Your task to perform on an android device: turn on priority inbox in the gmail app Image 0: 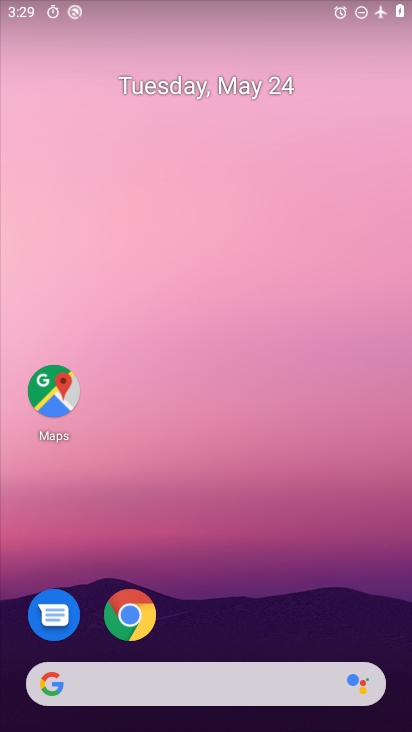
Step 0: drag from (192, 564) to (238, 371)
Your task to perform on an android device: turn on priority inbox in the gmail app Image 1: 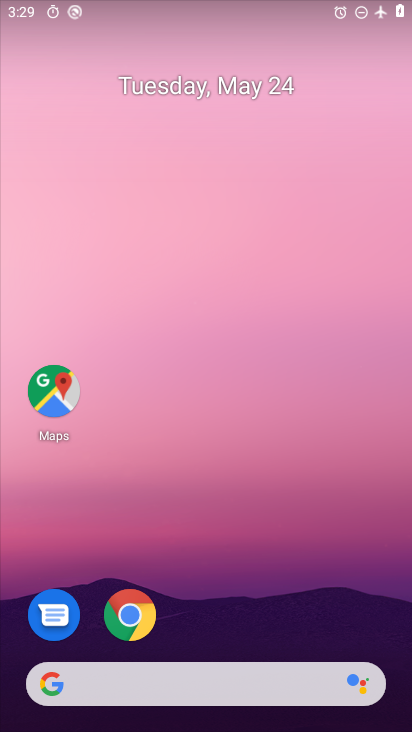
Step 1: drag from (227, 662) to (212, 275)
Your task to perform on an android device: turn on priority inbox in the gmail app Image 2: 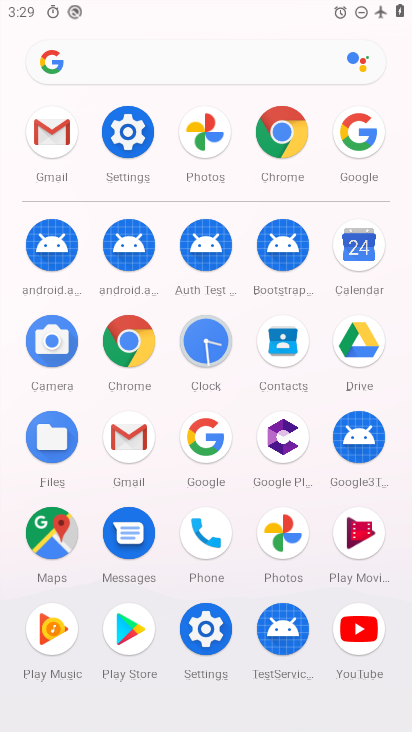
Step 2: click (135, 427)
Your task to perform on an android device: turn on priority inbox in the gmail app Image 3: 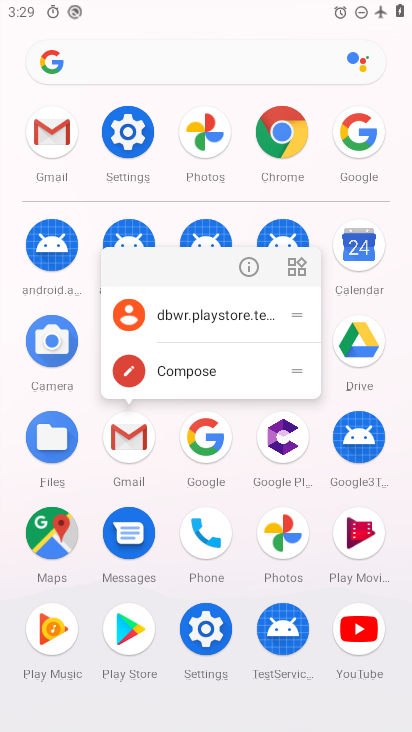
Step 3: click (135, 439)
Your task to perform on an android device: turn on priority inbox in the gmail app Image 4: 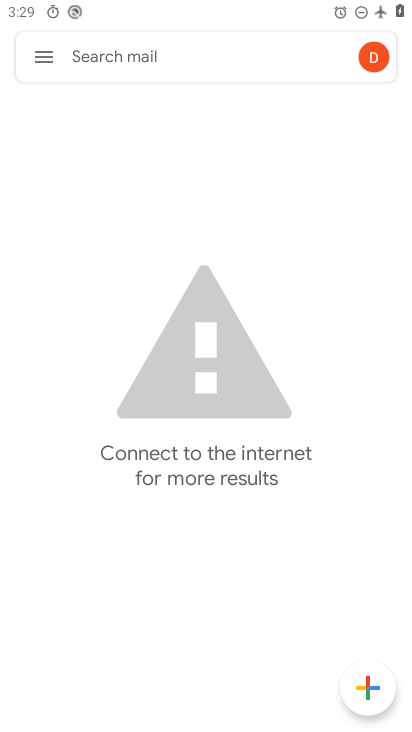
Step 4: click (46, 54)
Your task to perform on an android device: turn on priority inbox in the gmail app Image 5: 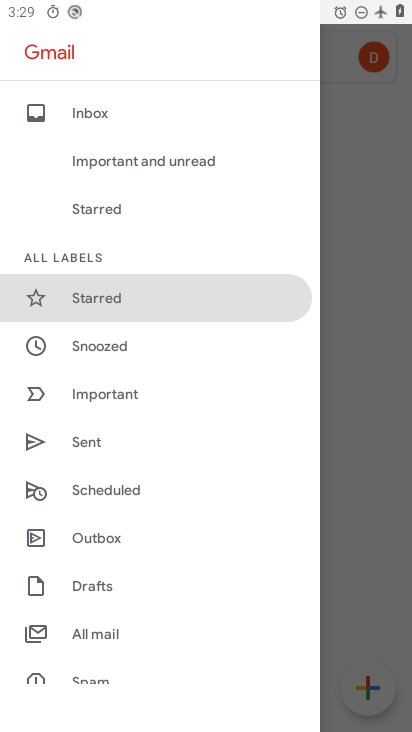
Step 5: drag from (122, 674) to (159, 348)
Your task to perform on an android device: turn on priority inbox in the gmail app Image 6: 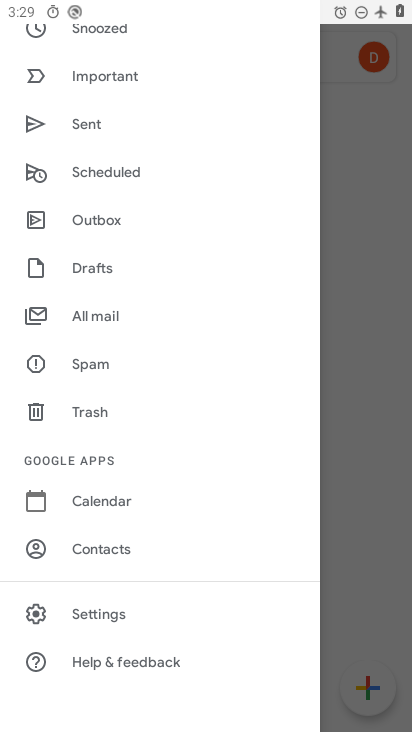
Step 6: click (86, 619)
Your task to perform on an android device: turn on priority inbox in the gmail app Image 7: 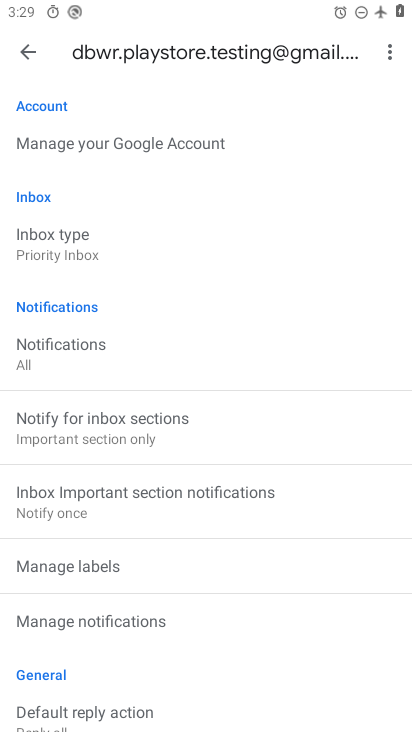
Step 7: click (87, 255)
Your task to perform on an android device: turn on priority inbox in the gmail app Image 8: 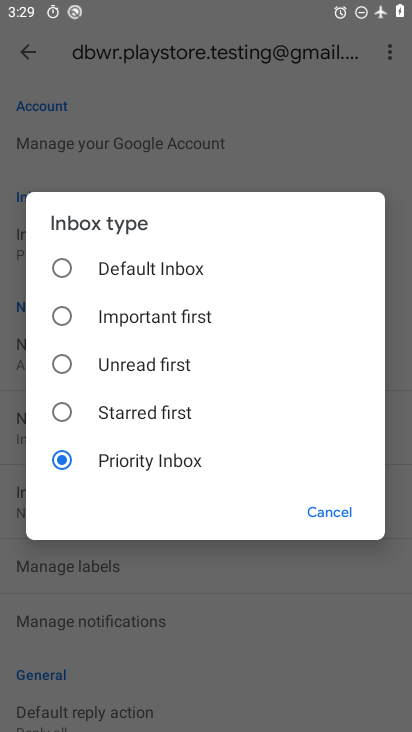
Step 8: click (356, 521)
Your task to perform on an android device: turn on priority inbox in the gmail app Image 9: 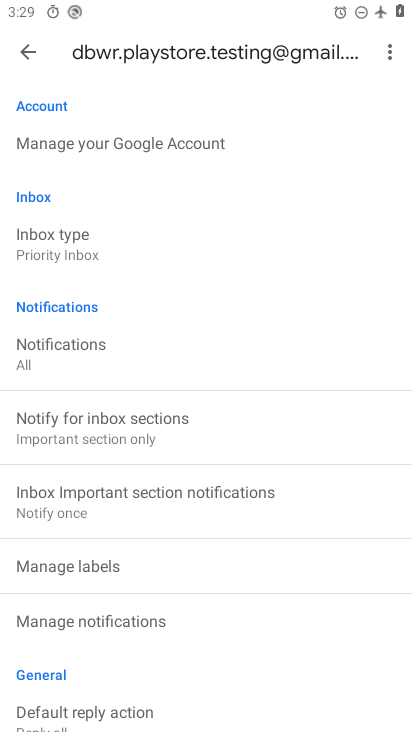
Step 9: task complete